Your task to perform on an android device: Show me popular games on the Play Store Image 0: 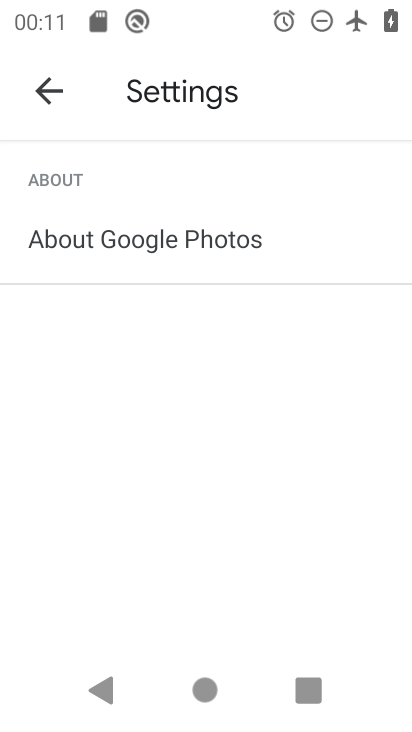
Step 0: press home button
Your task to perform on an android device: Show me popular games on the Play Store Image 1: 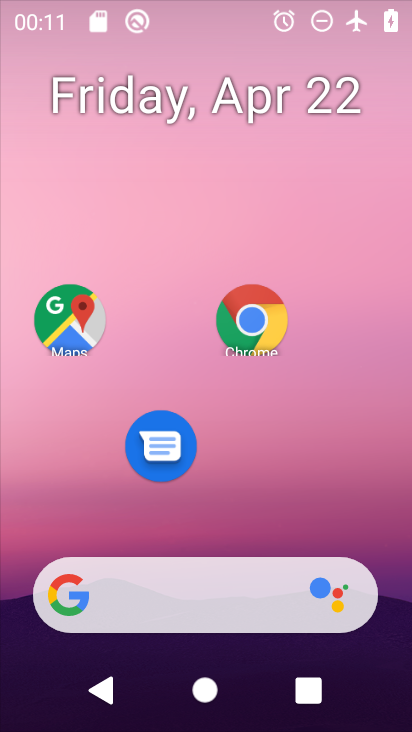
Step 1: drag from (206, 601) to (271, 140)
Your task to perform on an android device: Show me popular games on the Play Store Image 2: 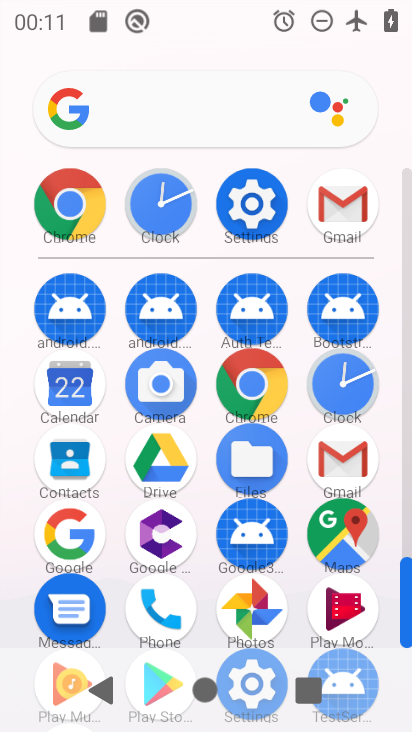
Step 2: drag from (201, 630) to (220, 271)
Your task to perform on an android device: Show me popular games on the Play Store Image 3: 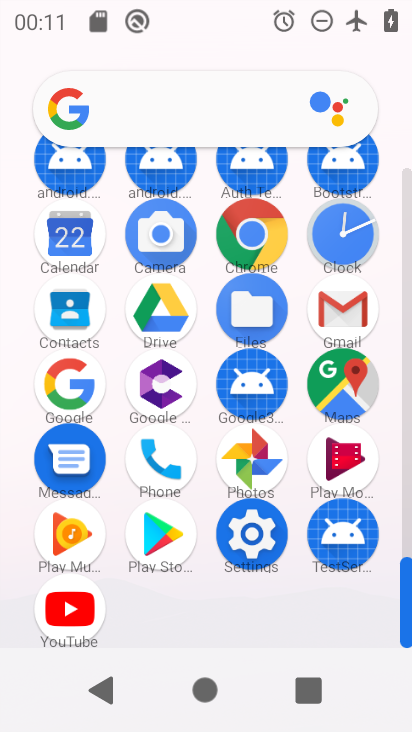
Step 3: click (170, 514)
Your task to perform on an android device: Show me popular games on the Play Store Image 4: 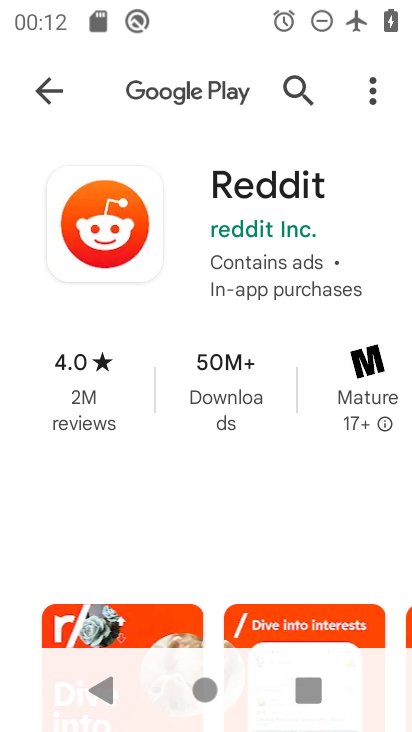
Step 4: click (48, 87)
Your task to perform on an android device: Show me popular games on the Play Store Image 5: 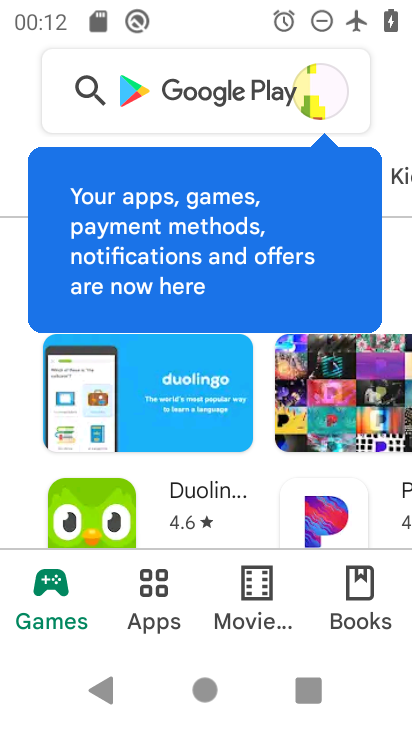
Step 5: click (178, 103)
Your task to perform on an android device: Show me popular games on the Play Store Image 6: 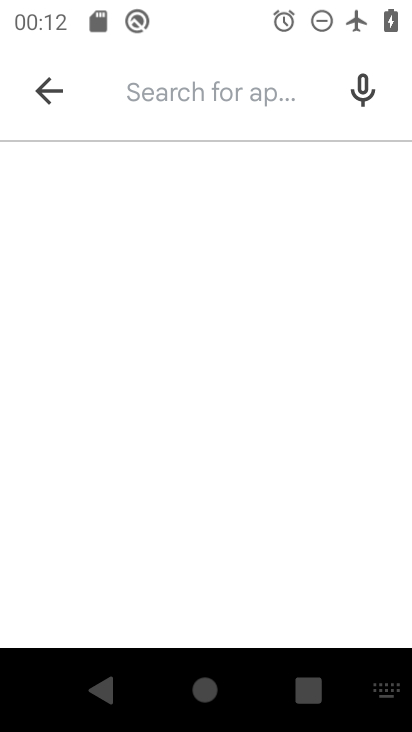
Step 6: type "games"
Your task to perform on an android device: Show me popular games on the Play Store Image 7: 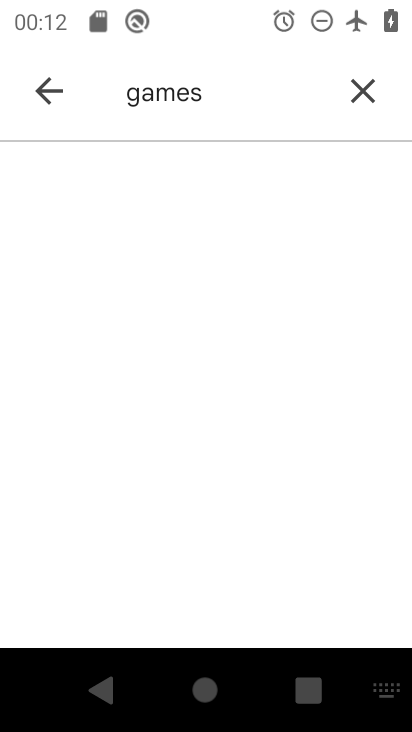
Step 7: click (181, 200)
Your task to perform on an android device: Show me popular games on the Play Store Image 8: 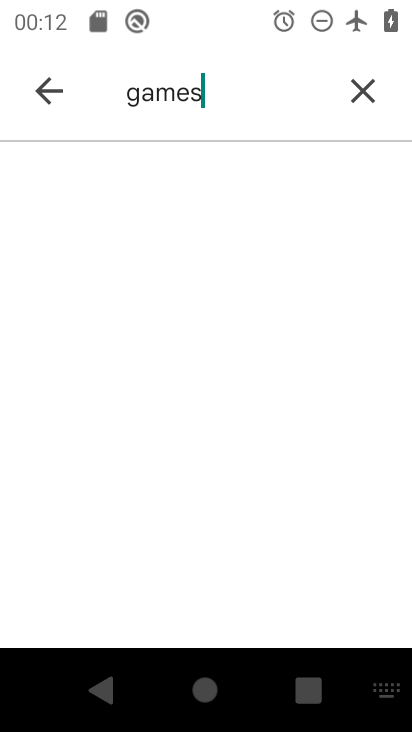
Step 8: click (222, 200)
Your task to perform on an android device: Show me popular games on the Play Store Image 9: 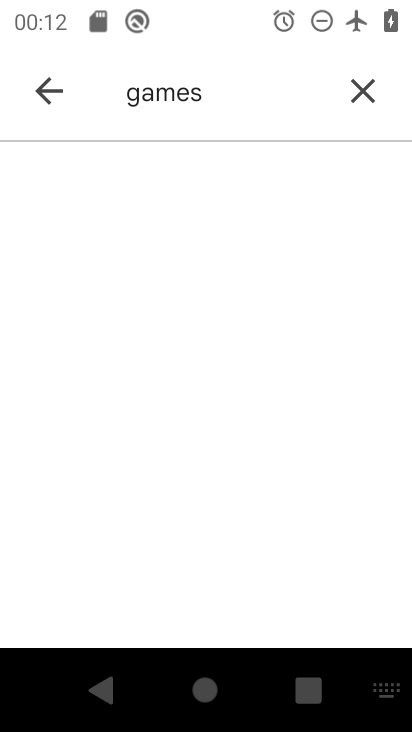
Step 9: click (46, 81)
Your task to perform on an android device: Show me popular games on the Play Store Image 10: 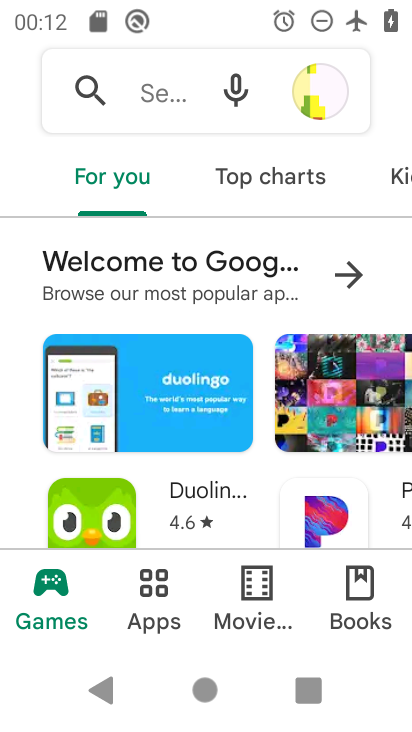
Step 10: task complete